Your task to perform on an android device: toggle location history Image 0: 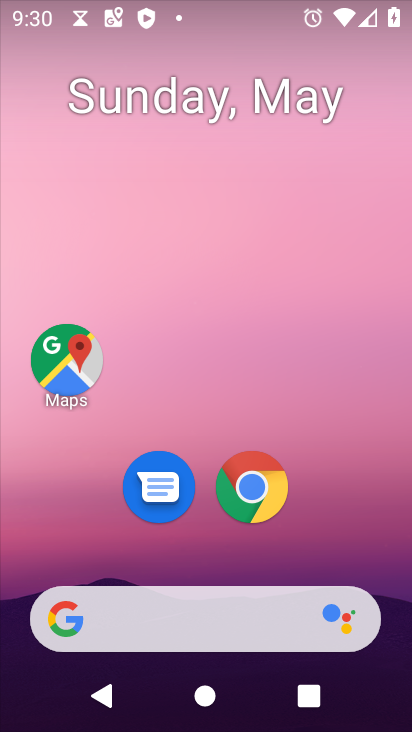
Step 0: drag from (323, 430) to (335, 161)
Your task to perform on an android device: toggle location history Image 1: 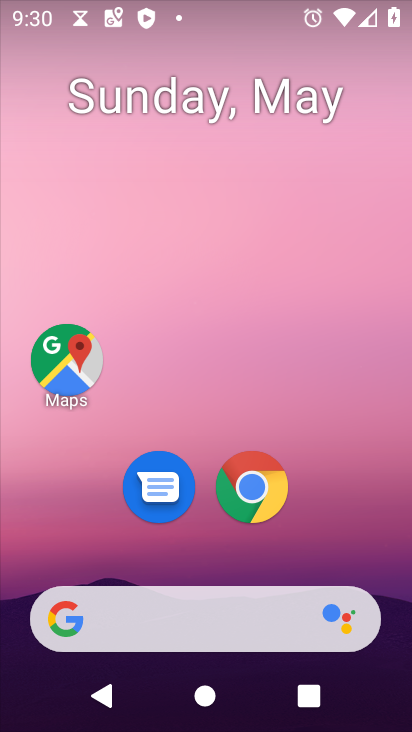
Step 1: drag from (343, 532) to (289, 74)
Your task to perform on an android device: toggle location history Image 2: 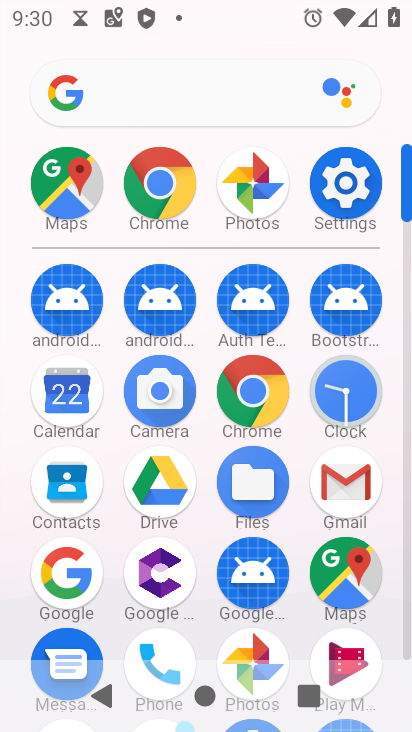
Step 2: click (344, 183)
Your task to perform on an android device: toggle location history Image 3: 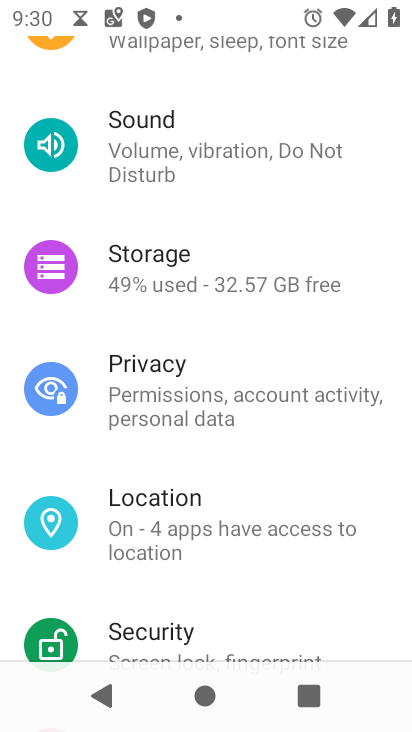
Step 3: click (187, 523)
Your task to perform on an android device: toggle location history Image 4: 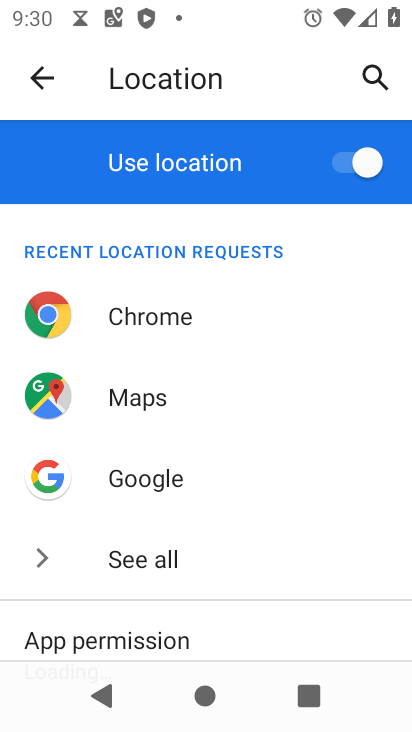
Step 4: drag from (242, 508) to (232, 144)
Your task to perform on an android device: toggle location history Image 5: 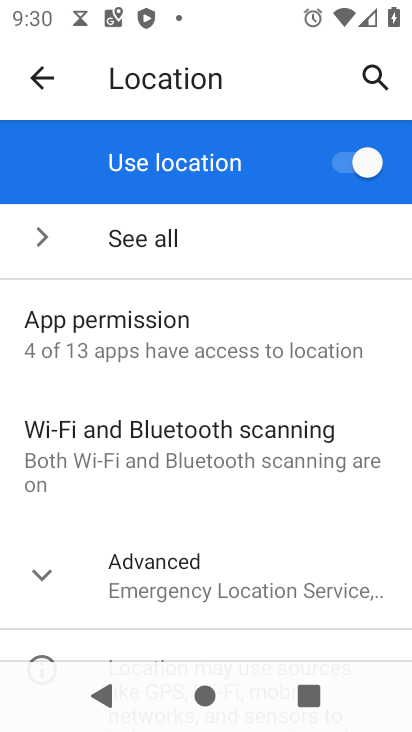
Step 5: click (210, 586)
Your task to perform on an android device: toggle location history Image 6: 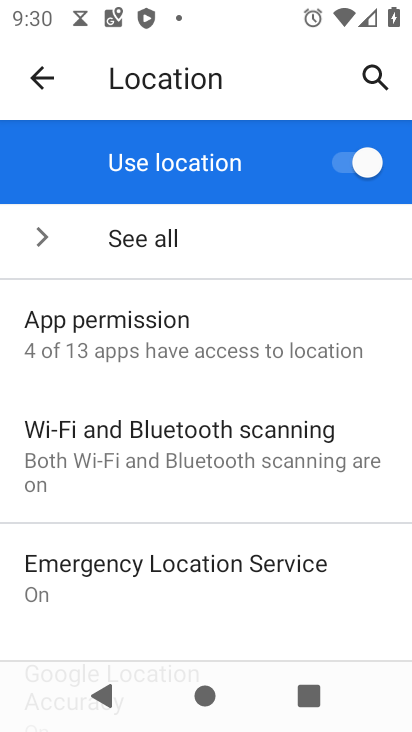
Step 6: drag from (207, 598) to (239, 364)
Your task to perform on an android device: toggle location history Image 7: 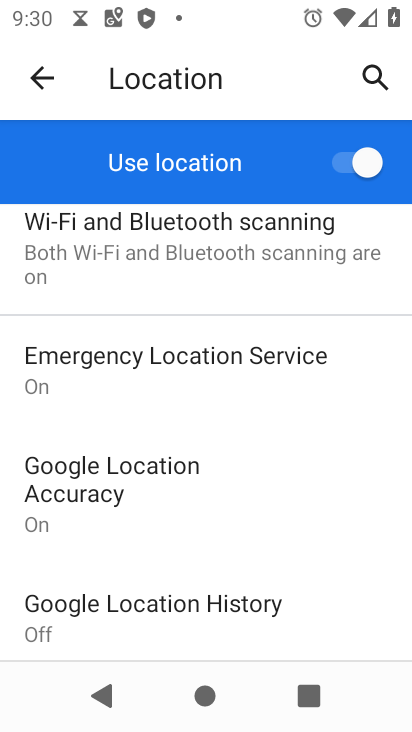
Step 7: drag from (204, 582) to (219, 406)
Your task to perform on an android device: toggle location history Image 8: 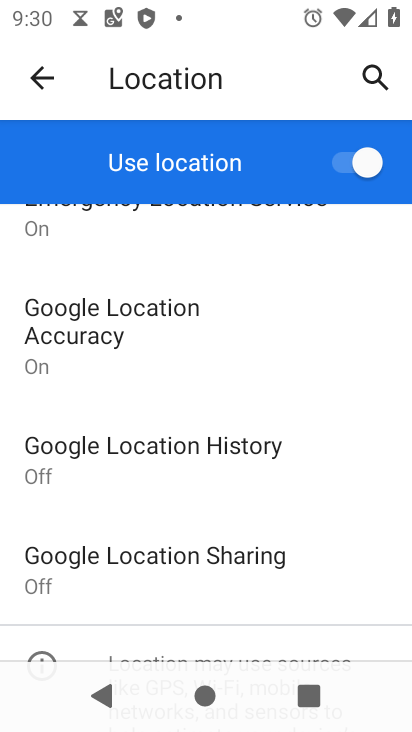
Step 8: click (196, 442)
Your task to perform on an android device: toggle location history Image 9: 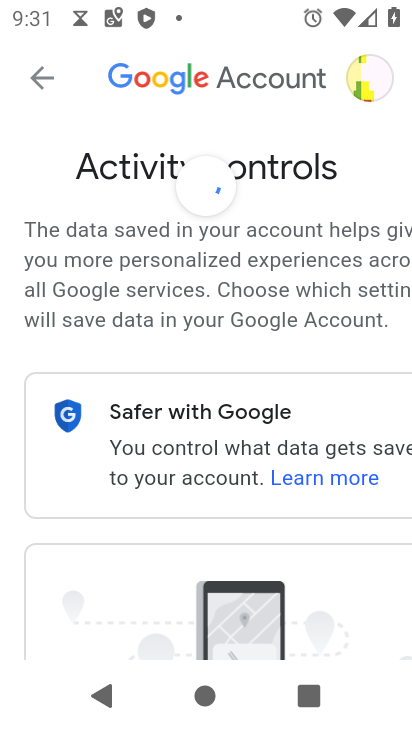
Step 9: drag from (260, 572) to (294, 165)
Your task to perform on an android device: toggle location history Image 10: 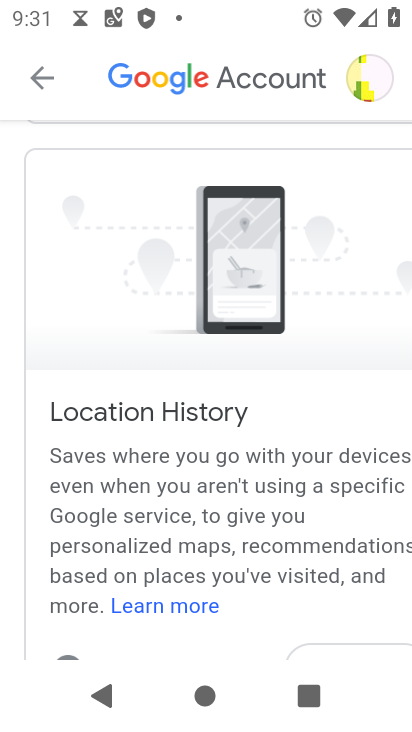
Step 10: drag from (261, 622) to (205, 238)
Your task to perform on an android device: toggle location history Image 11: 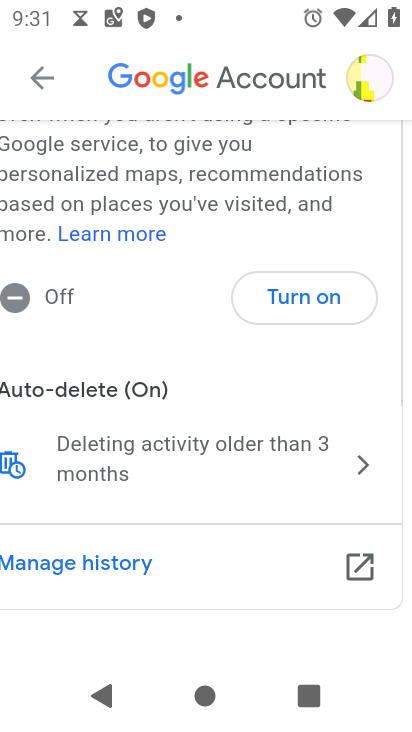
Step 11: click (329, 306)
Your task to perform on an android device: toggle location history Image 12: 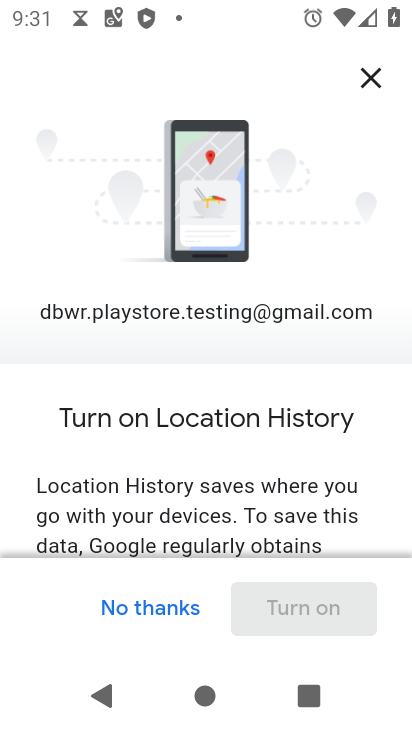
Step 12: drag from (314, 486) to (259, 144)
Your task to perform on an android device: toggle location history Image 13: 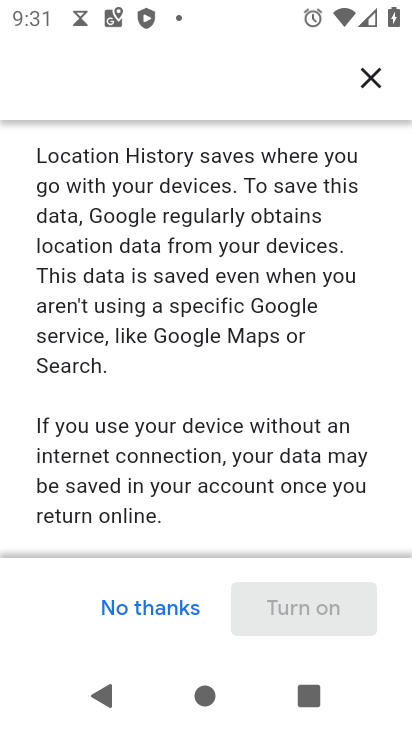
Step 13: drag from (282, 403) to (328, 1)
Your task to perform on an android device: toggle location history Image 14: 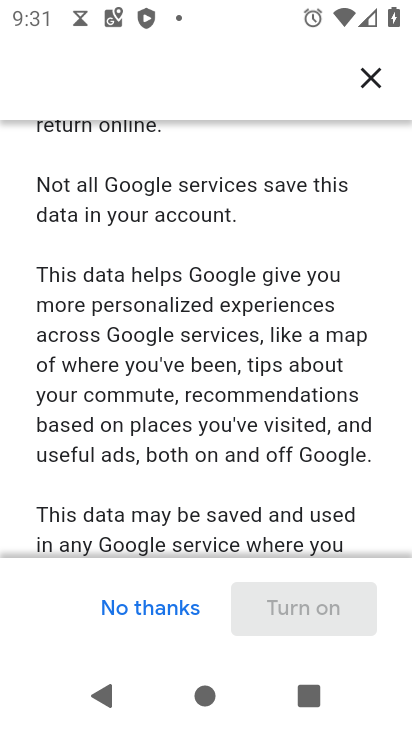
Step 14: drag from (275, 237) to (304, 51)
Your task to perform on an android device: toggle location history Image 15: 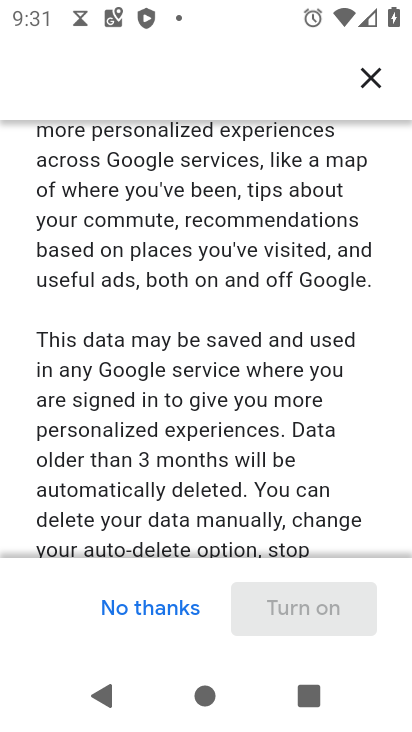
Step 15: drag from (313, 120) to (283, 1)
Your task to perform on an android device: toggle location history Image 16: 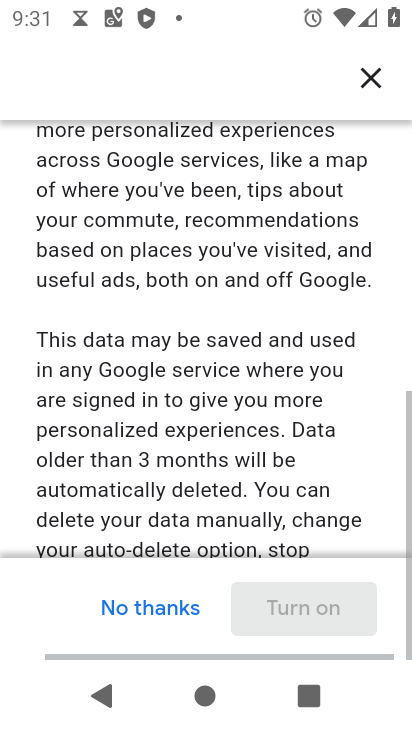
Step 16: drag from (262, 364) to (265, 48)
Your task to perform on an android device: toggle location history Image 17: 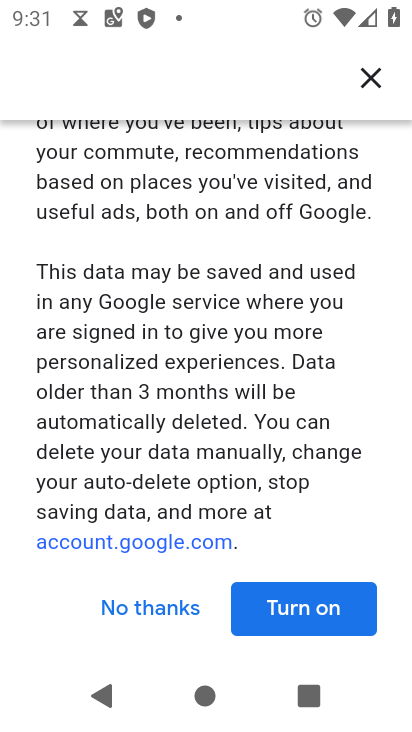
Step 17: click (320, 610)
Your task to perform on an android device: toggle location history Image 18: 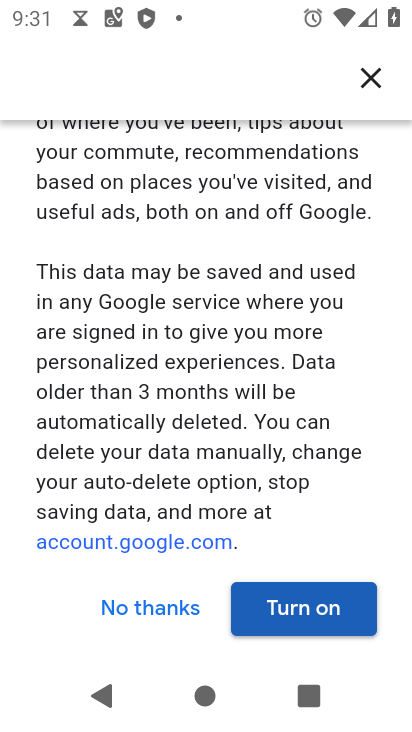
Step 18: click (353, 616)
Your task to perform on an android device: toggle location history Image 19: 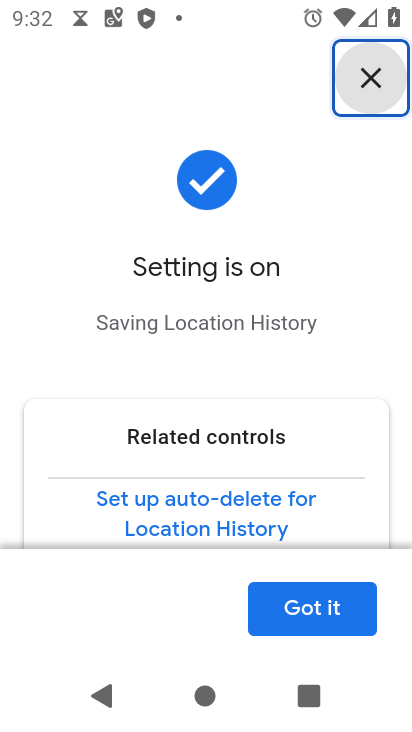
Step 19: task complete